Your task to perform on an android device: remove spam from my inbox in the gmail app Image 0: 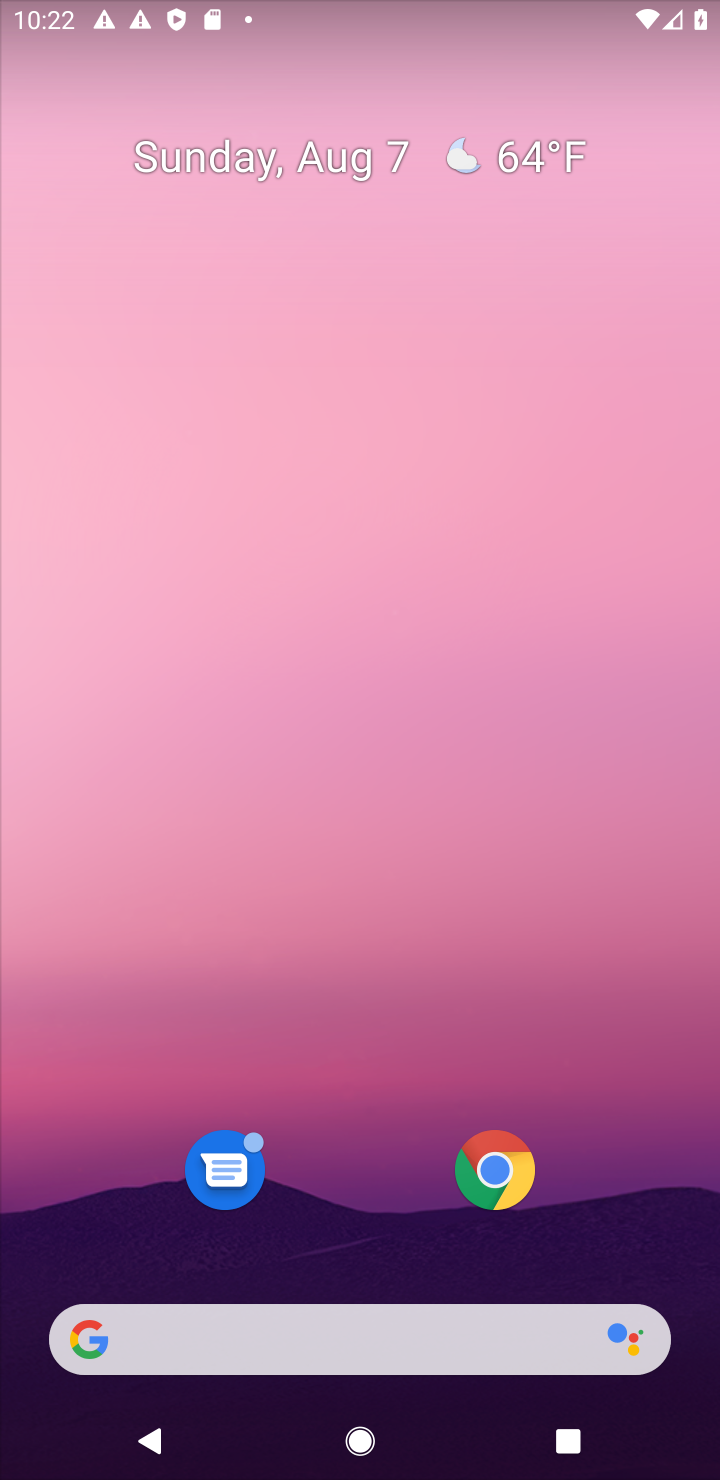
Step 0: drag from (433, 1327) to (711, 18)
Your task to perform on an android device: remove spam from my inbox in the gmail app Image 1: 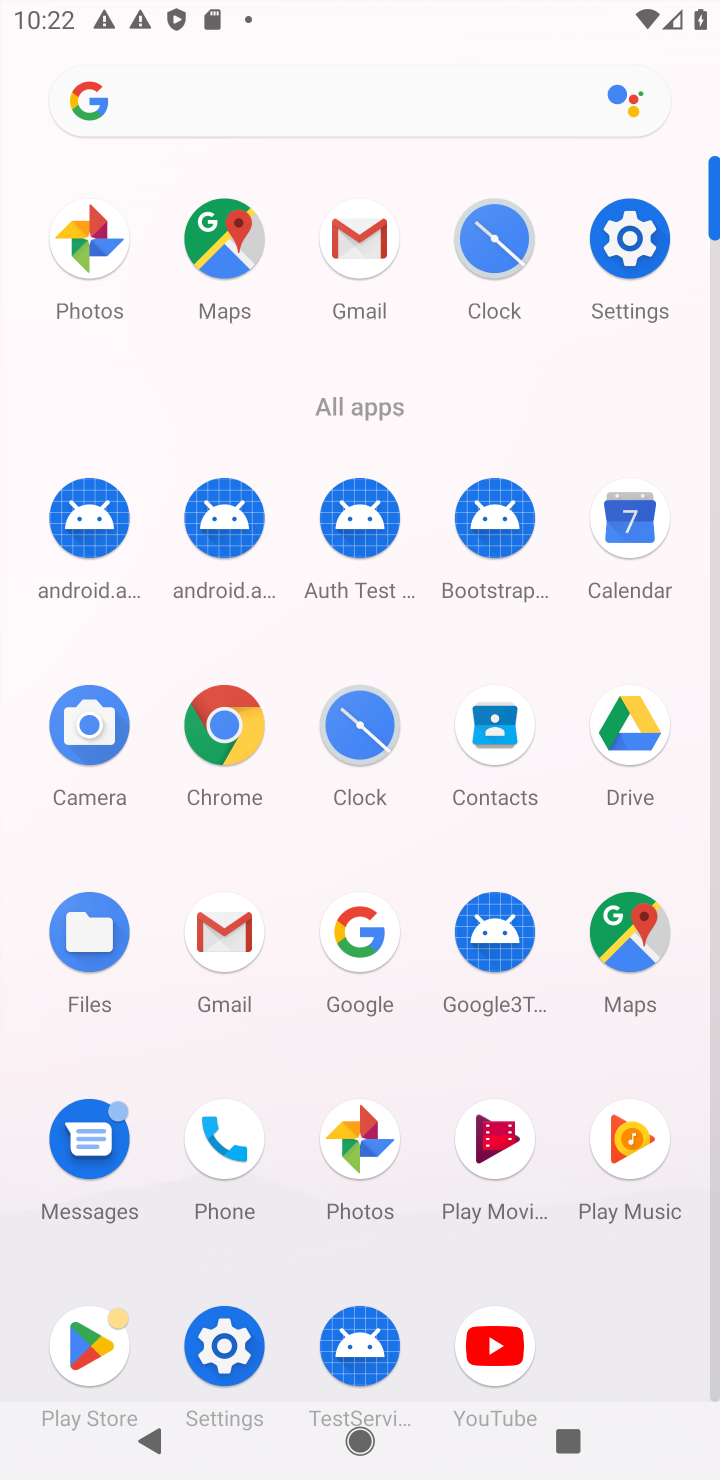
Step 1: click (219, 941)
Your task to perform on an android device: remove spam from my inbox in the gmail app Image 2: 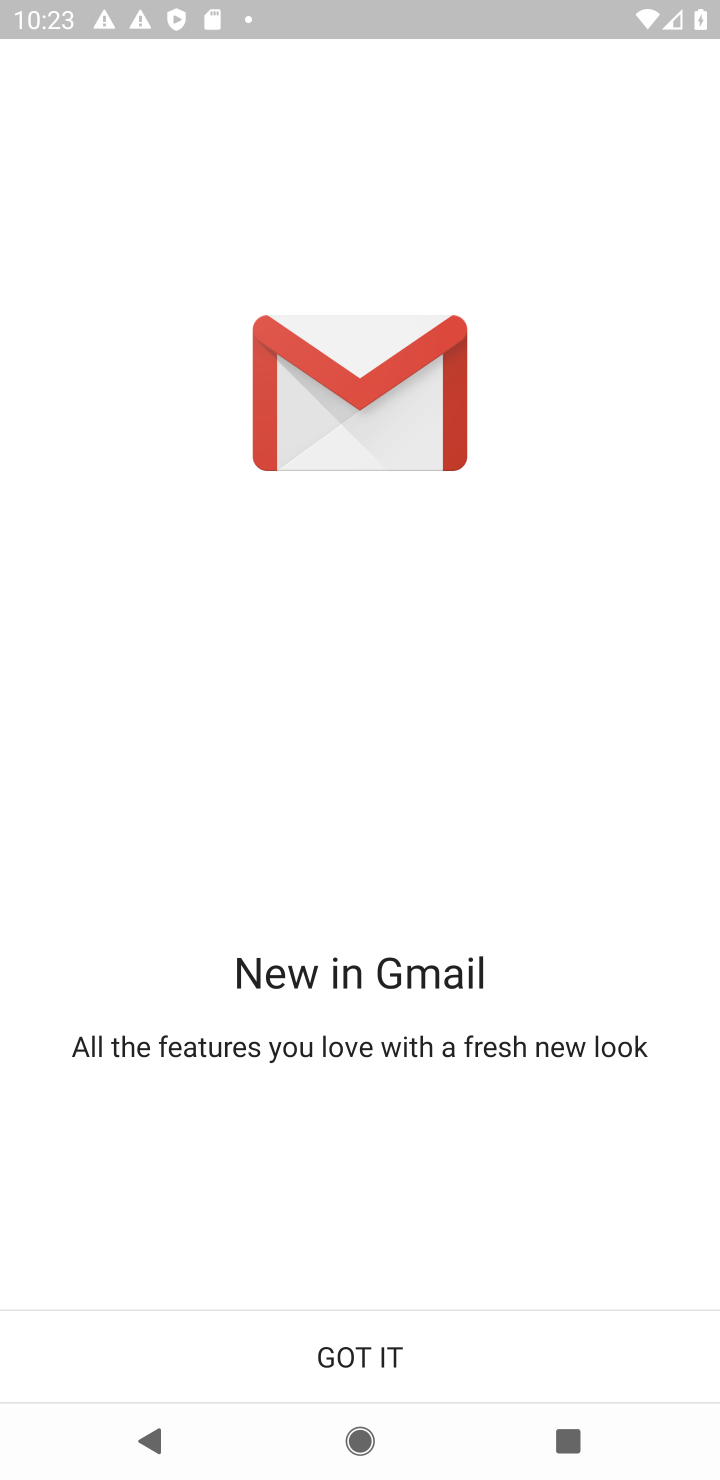
Step 2: click (491, 1366)
Your task to perform on an android device: remove spam from my inbox in the gmail app Image 3: 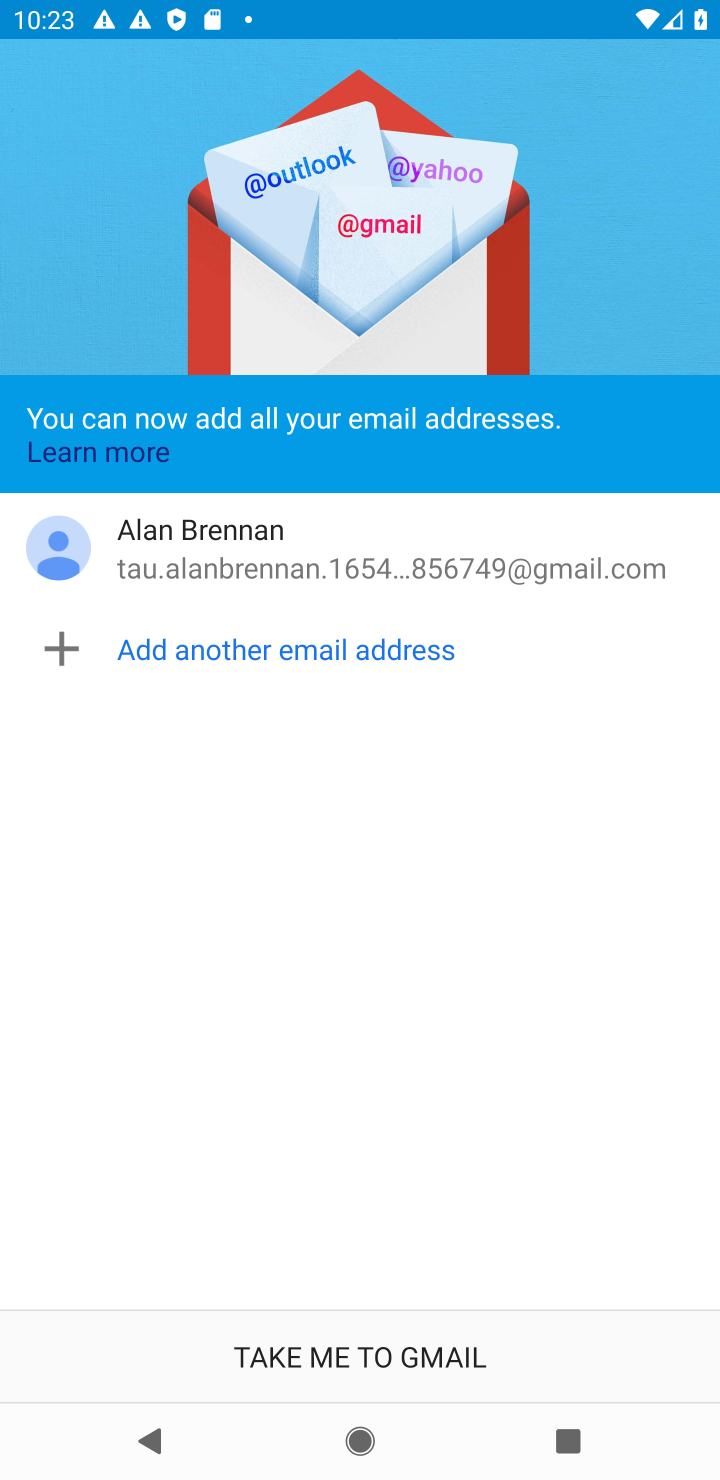
Step 3: click (491, 1366)
Your task to perform on an android device: remove spam from my inbox in the gmail app Image 4: 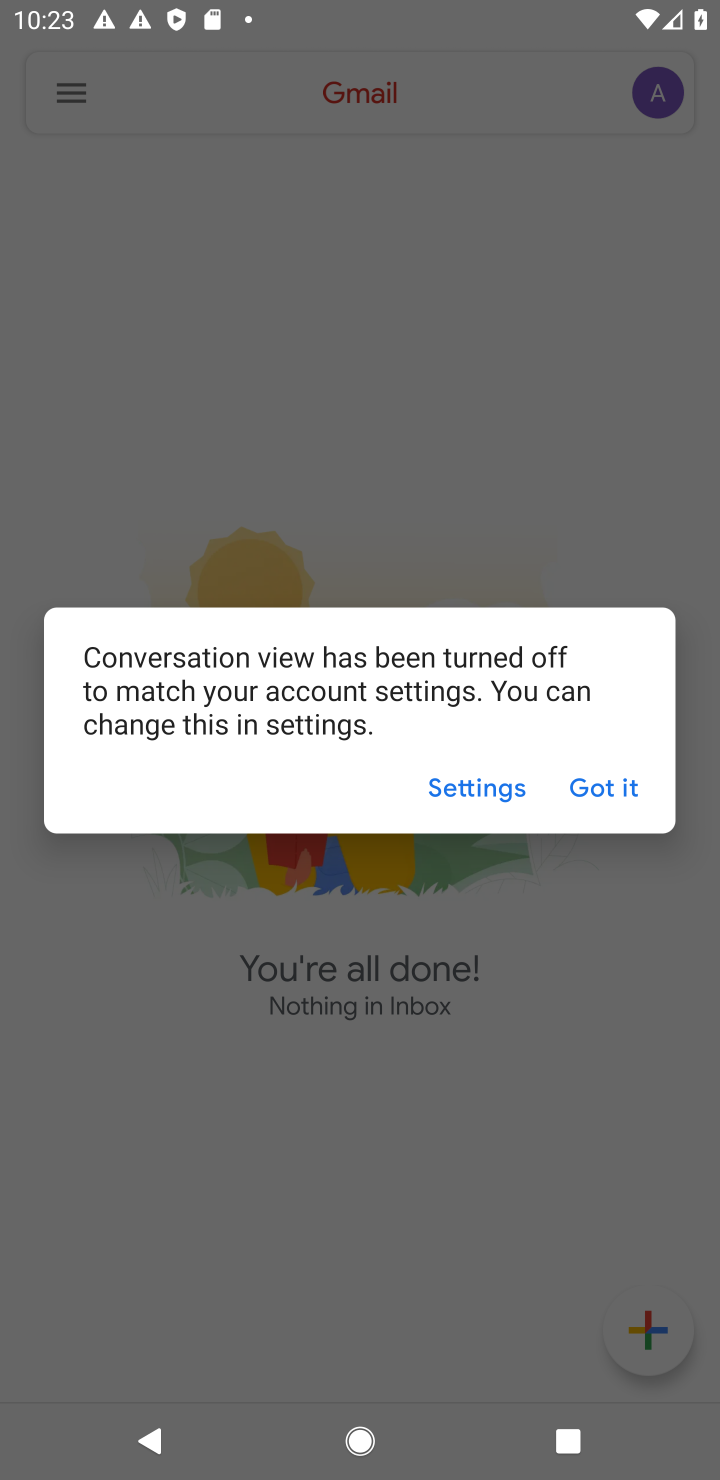
Step 4: click (616, 774)
Your task to perform on an android device: remove spam from my inbox in the gmail app Image 5: 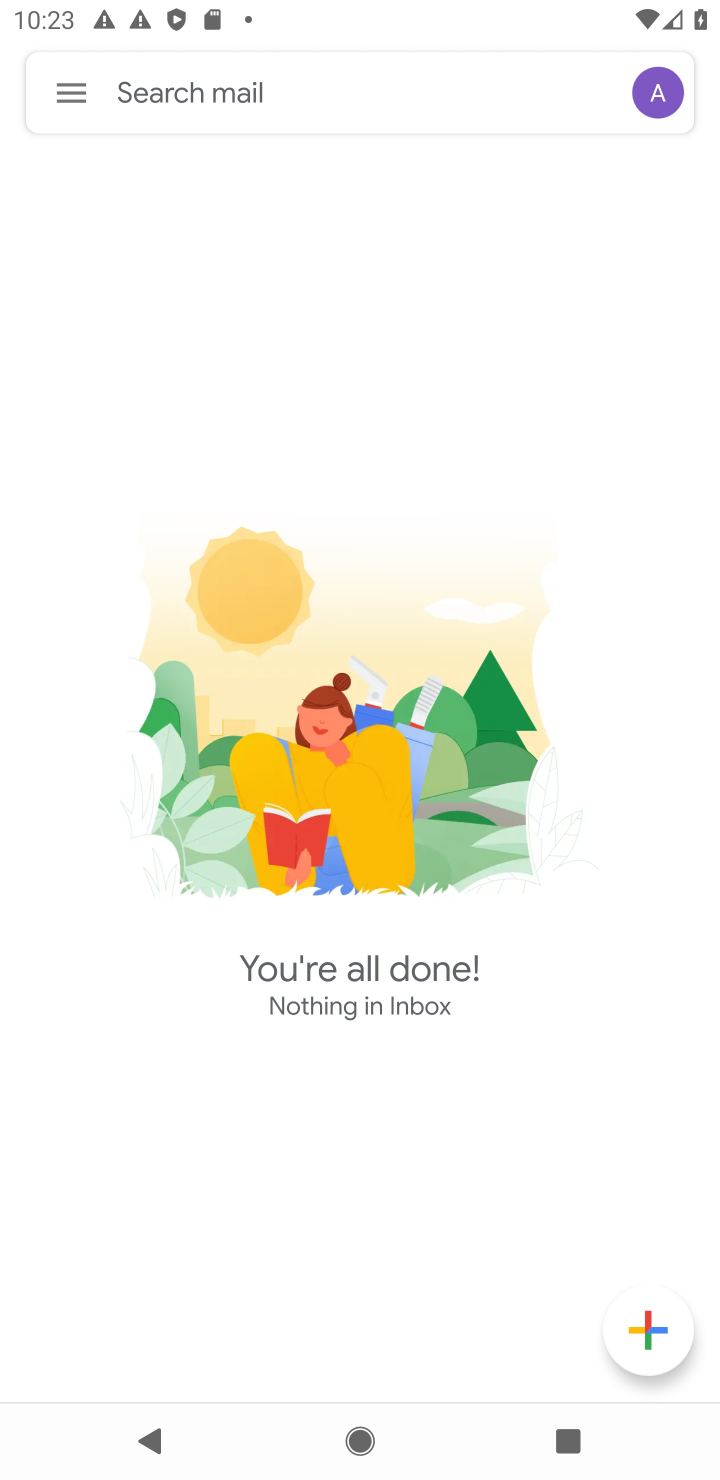
Step 5: click (89, 94)
Your task to perform on an android device: remove spam from my inbox in the gmail app Image 6: 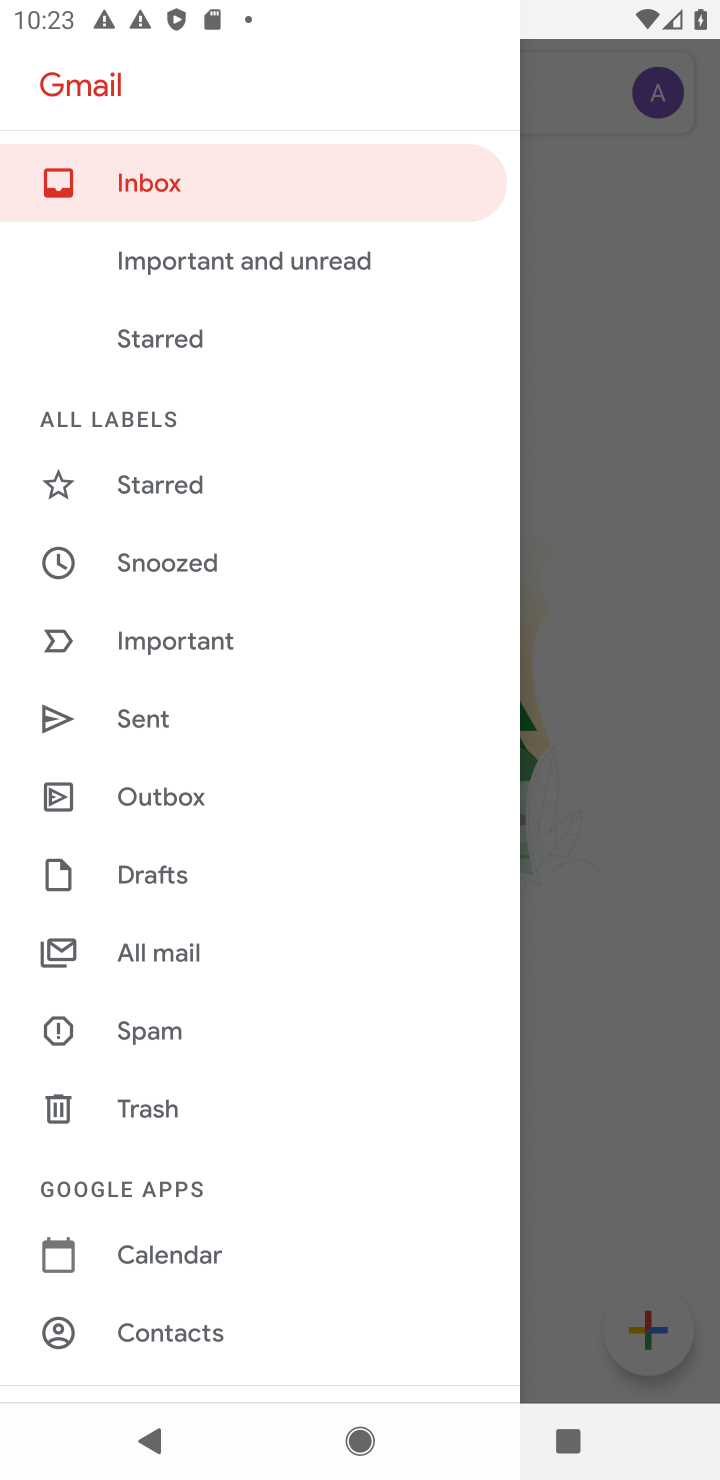
Step 6: click (163, 1023)
Your task to perform on an android device: remove spam from my inbox in the gmail app Image 7: 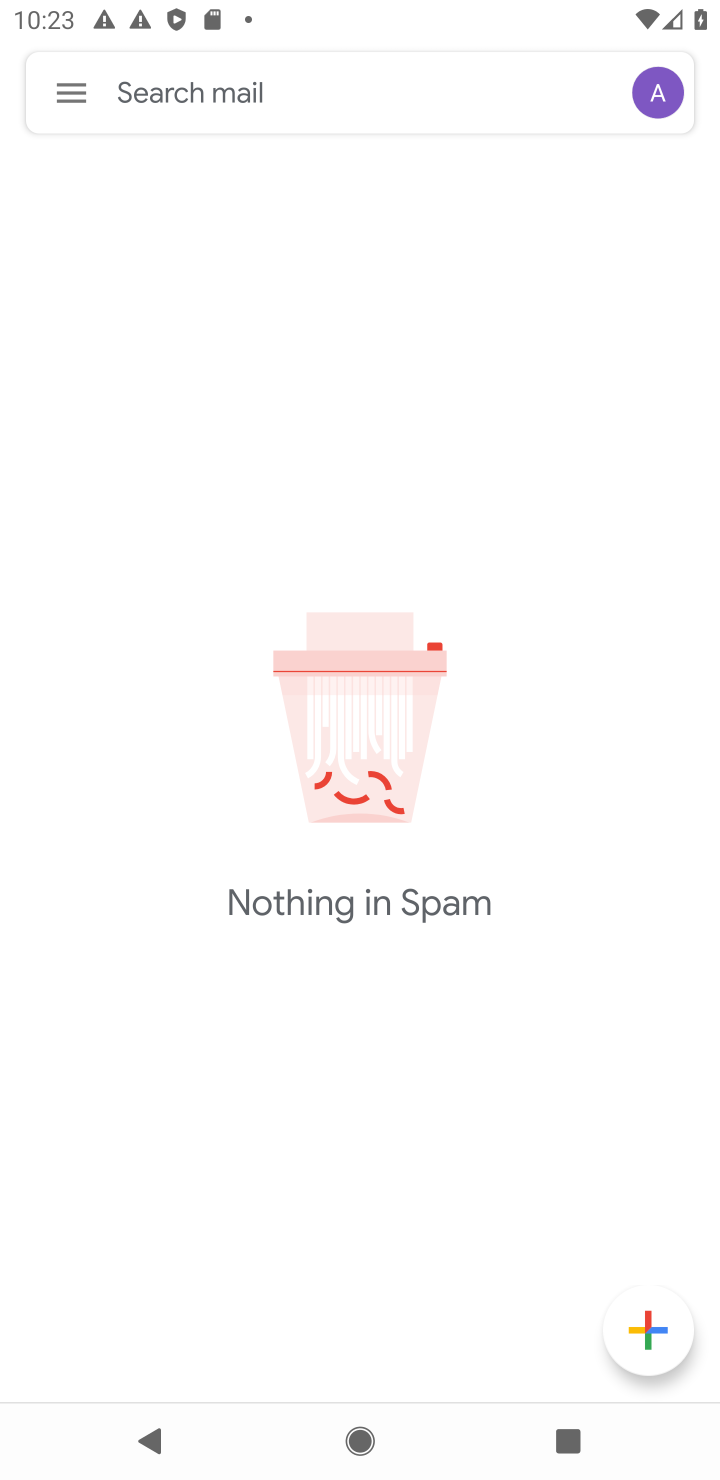
Step 7: task complete